Your task to perform on an android device: create a new album in the google photos Image 0: 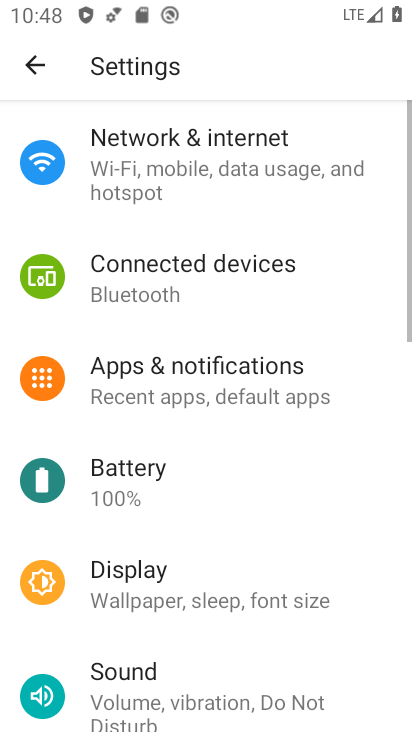
Step 0: press home button
Your task to perform on an android device: create a new album in the google photos Image 1: 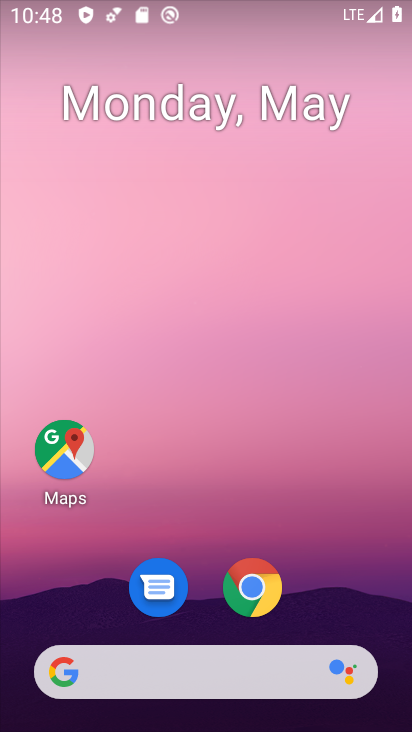
Step 1: drag from (382, 612) to (293, 146)
Your task to perform on an android device: create a new album in the google photos Image 2: 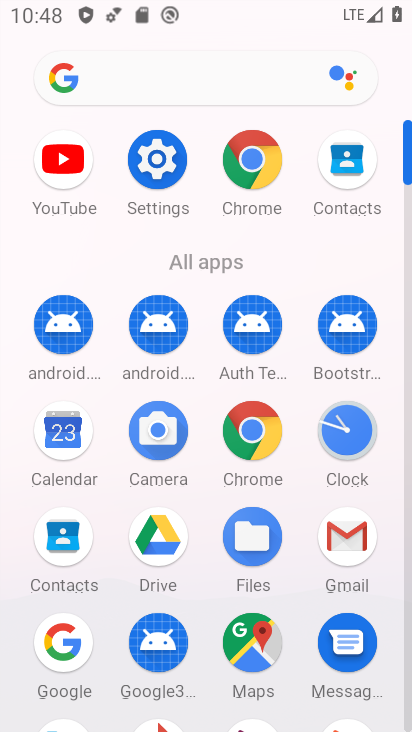
Step 2: click (409, 698)
Your task to perform on an android device: create a new album in the google photos Image 3: 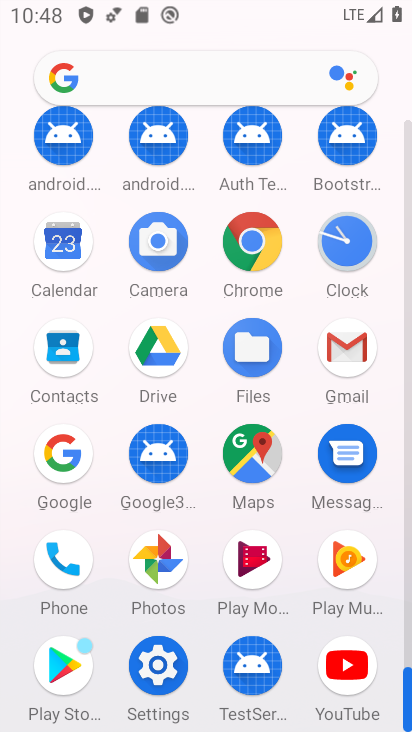
Step 3: click (151, 569)
Your task to perform on an android device: create a new album in the google photos Image 4: 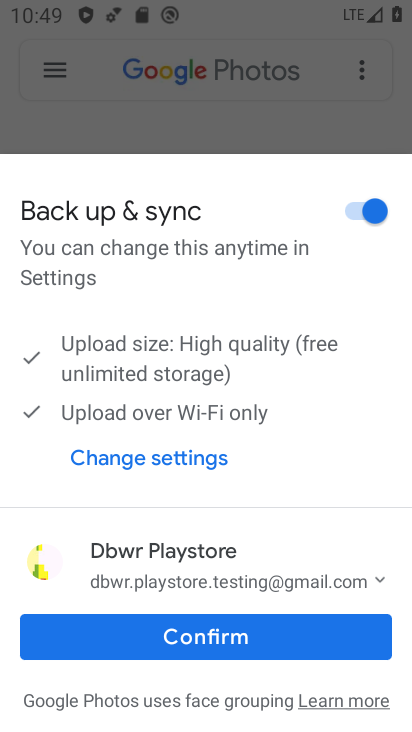
Step 4: click (221, 644)
Your task to perform on an android device: create a new album in the google photos Image 5: 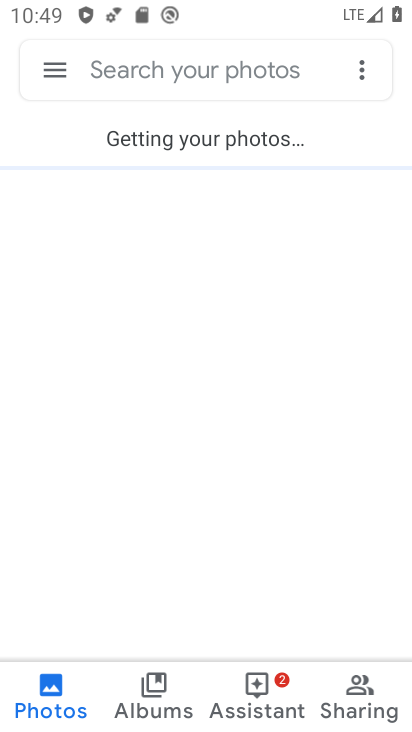
Step 5: click (170, 698)
Your task to perform on an android device: create a new album in the google photos Image 6: 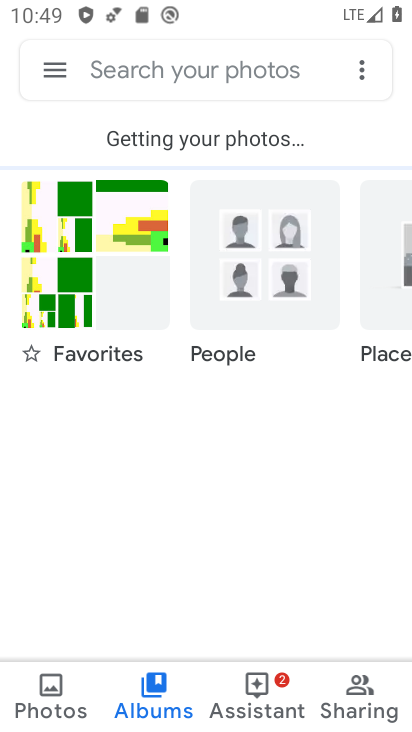
Step 6: click (256, 711)
Your task to perform on an android device: create a new album in the google photos Image 7: 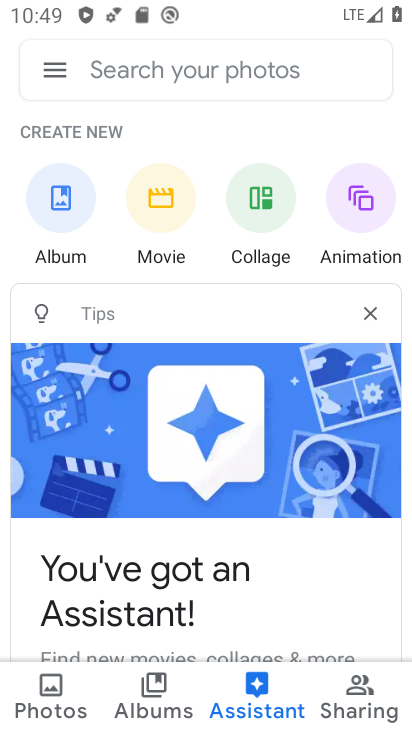
Step 7: click (52, 209)
Your task to perform on an android device: create a new album in the google photos Image 8: 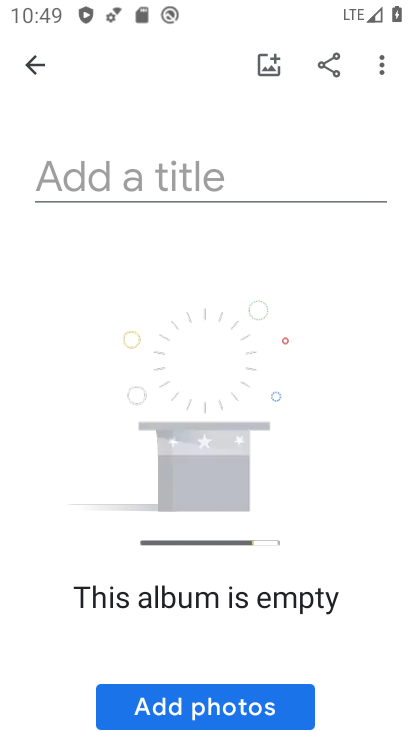
Step 8: click (97, 191)
Your task to perform on an android device: create a new album in the google photos Image 9: 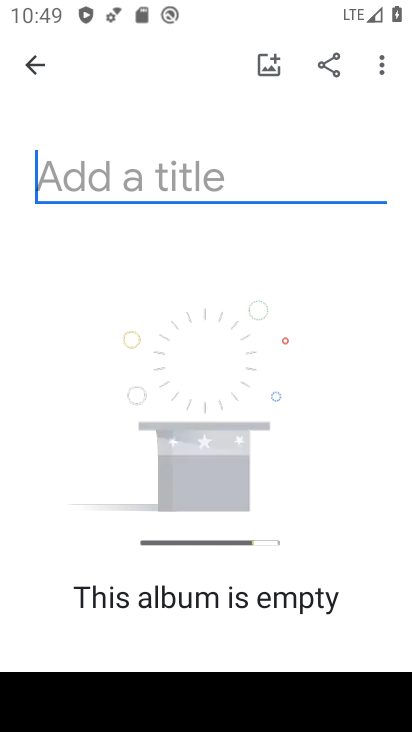
Step 9: type "bkhbbk"
Your task to perform on an android device: create a new album in the google photos Image 10: 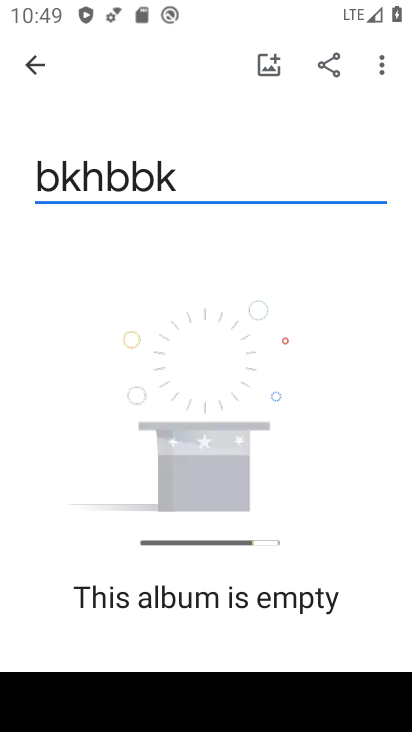
Step 10: click (257, 62)
Your task to perform on an android device: create a new album in the google photos Image 11: 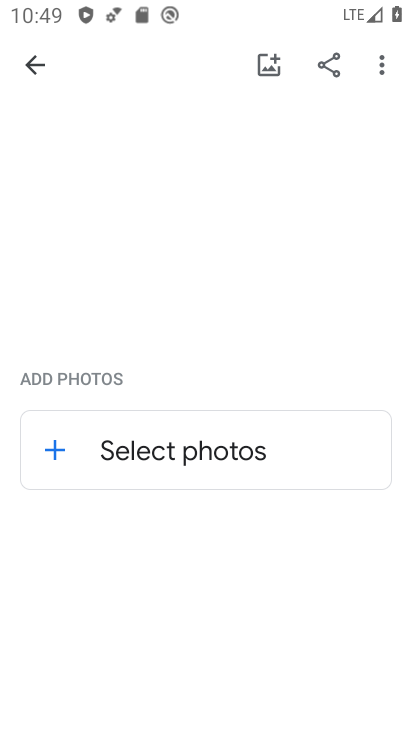
Step 11: click (206, 462)
Your task to perform on an android device: create a new album in the google photos Image 12: 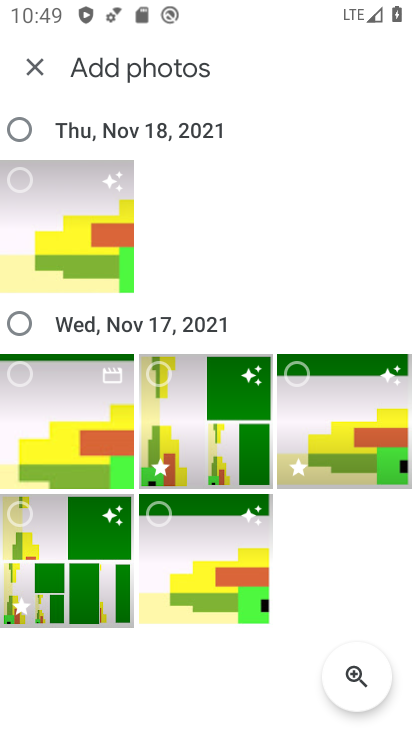
Step 12: click (192, 448)
Your task to perform on an android device: create a new album in the google photos Image 13: 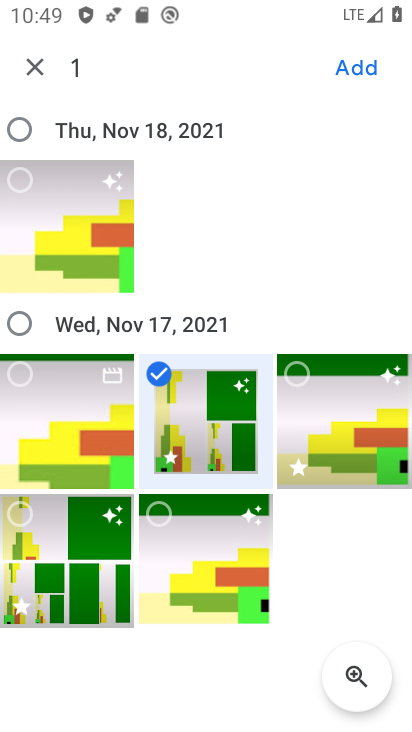
Step 13: click (306, 420)
Your task to perform on an android device: create a new album in the google photos Image 14: 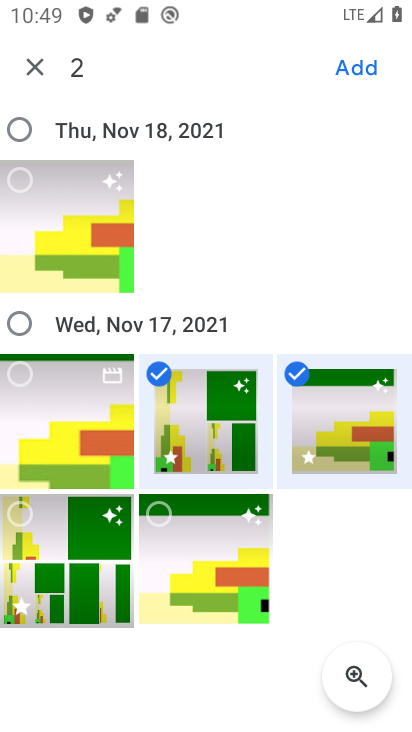
Step 14: click (353, 66)
Your task to perform on an android device: create a new album in the google photos Image 15: 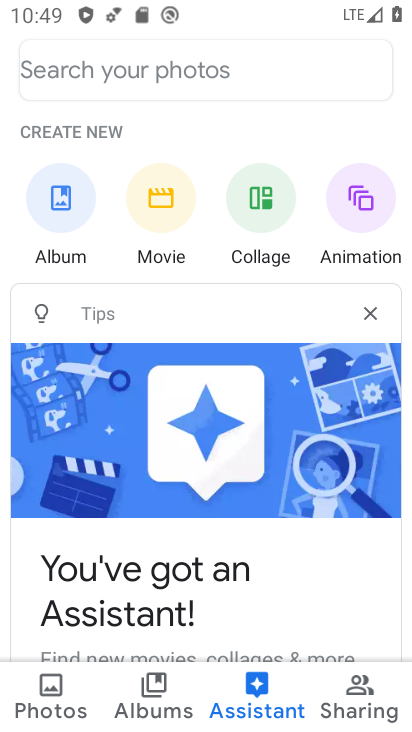
Step 15: task complete